Your task to perform on an android device: What's the weather going to be this weekend? Image 0: 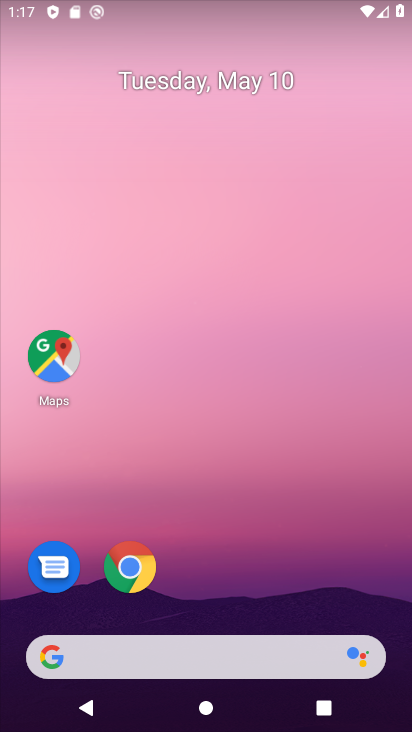
Step 0: drag from (1, 257) to (382, 188)
Your task to perform on an android device: What's the weather going to be this weekend? Image 1: 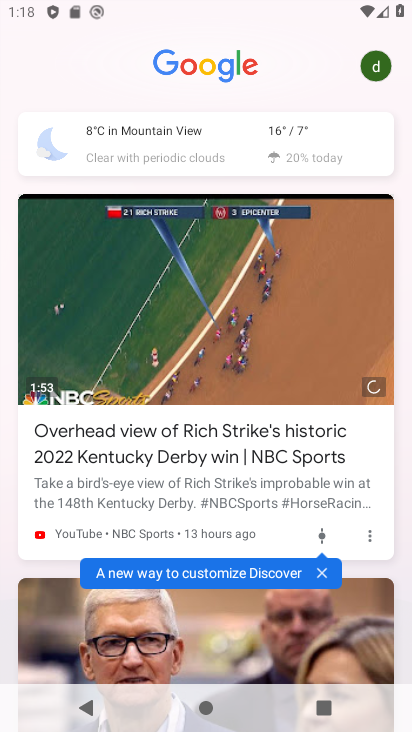
Step 1: click (286, 130)
Your task to perform on an android device: What's the weather going to be this weekend? Image 2: 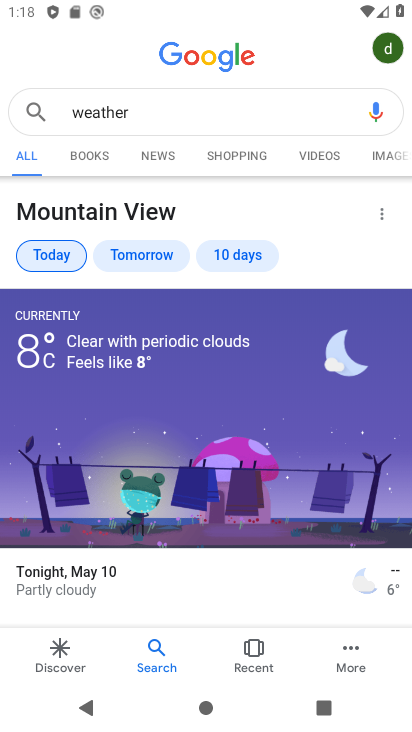
Step 2: drag from (126, 510) to (195, 375)
Your task to perform on an android device: What's the weather going to be this weekend? Image 3: 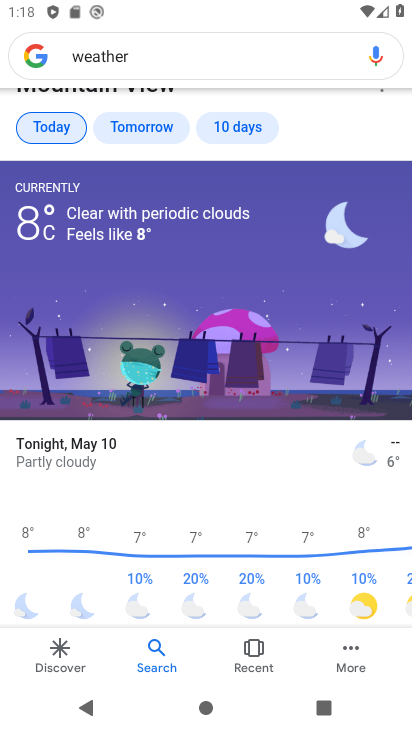
Step 3: click (255, 349)
Your task to perform on an android device: What's the weather going to be this weekend? Image 4: 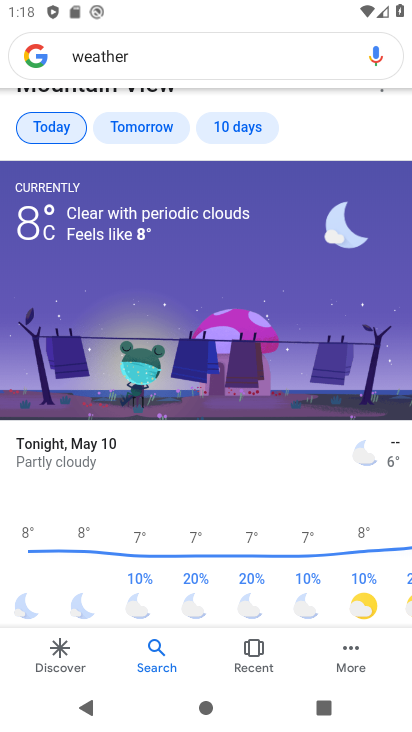
Step 4: click (250, 457)
Your task to perform on an android device: What's the weather going to be this weekend? Image 5: 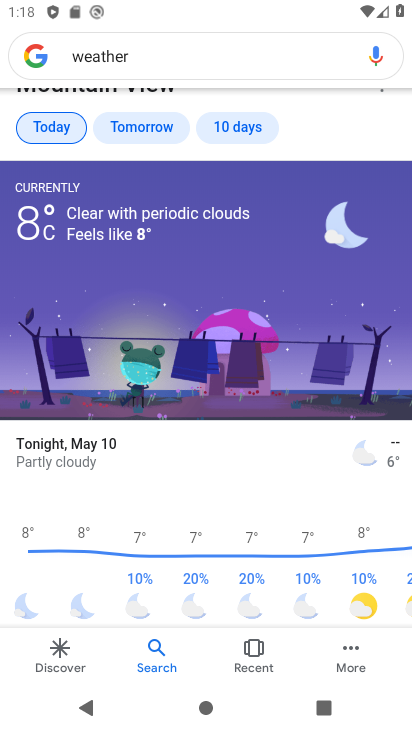
Step 5: drag from (249, 560) to (327, 358)
Your task to perform on an android device: What's the weather going to be this weekend? Image 6: 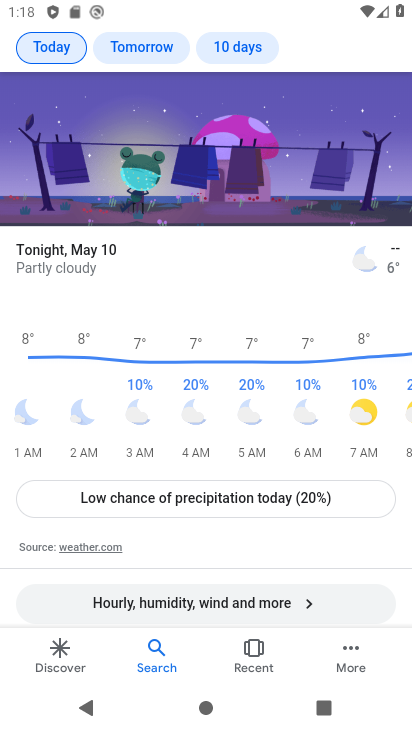
Step 6: drag from (209, 561) to (311, 287)
Your task to perform on an android device: What's the weather going to be this weekend? Image 7: 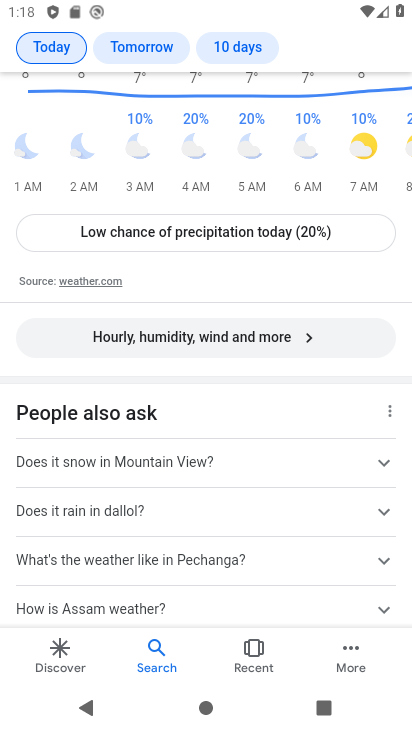
Step 7: drag from (181, 615) to (281, 200)
Your task to perform on an android device: What's the weather going to be this weekend? Image 8: 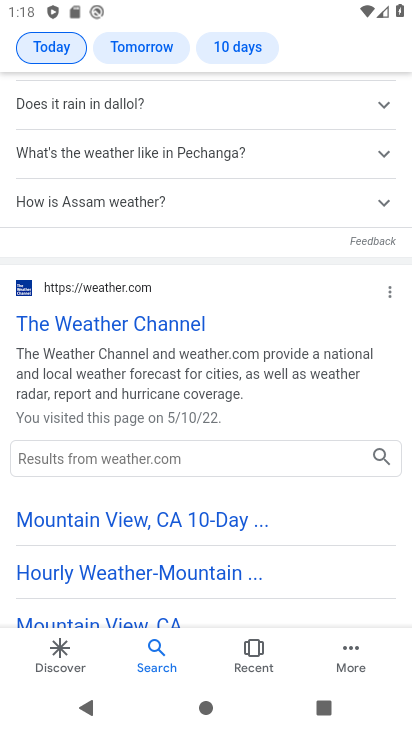
Step 8: click (140, 328)
Your task to perform on an android device: What's the weather going to be this weekend? Image 9: 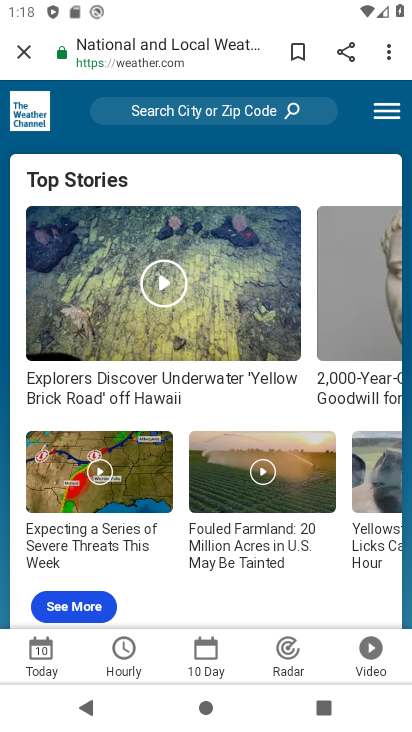
Step 9: click (217, 660)
Your task to perform on an android device: What's the weather going to be this weekend? Image 10: 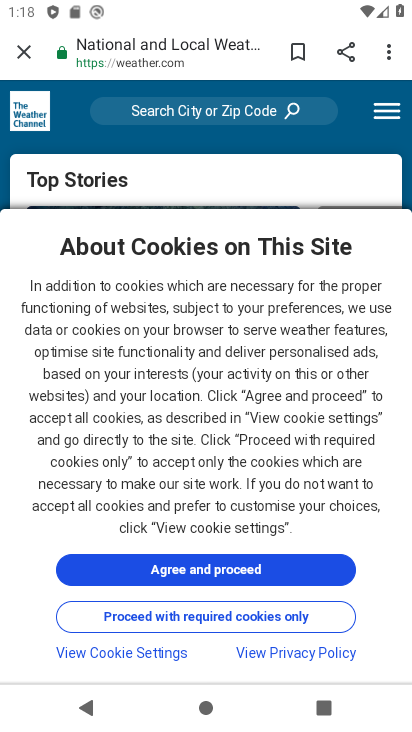
Step 10: click (201, 566)
Your task to perform on an android device: What's the weather going to be this weekend? Image 11: 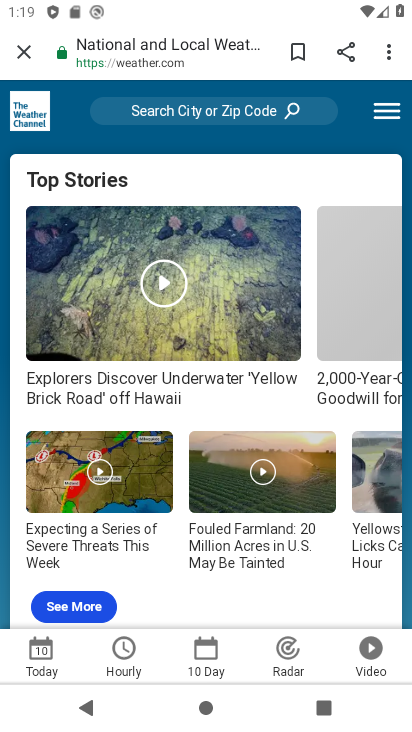
Step 11: click (208, 665)
Your task to perform on an android device: What's the weather going to be this weekend? Image 12: 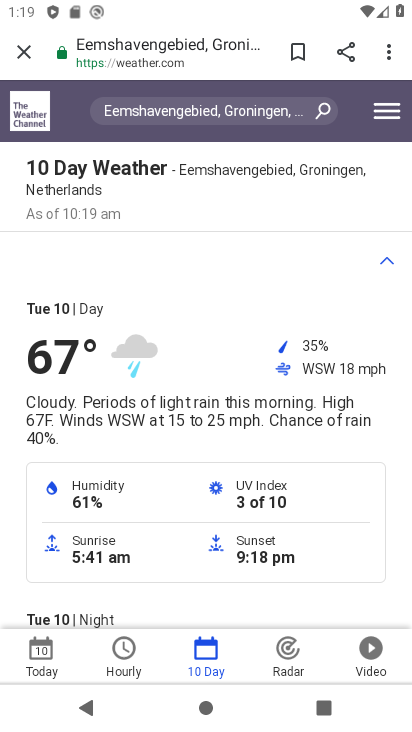
Step 12: click (198, 655)
Your task to perform on an android device: What's the weather going to be this weekend? Image 13: 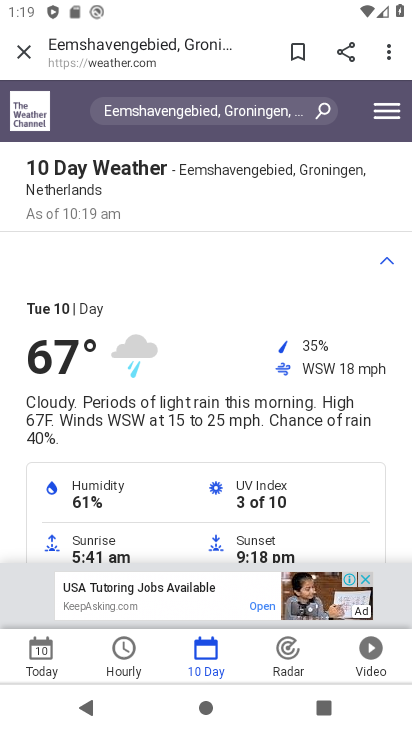
Step 13: task complete